Your task to perform on an android device: open chrome privacy settings Image 0: 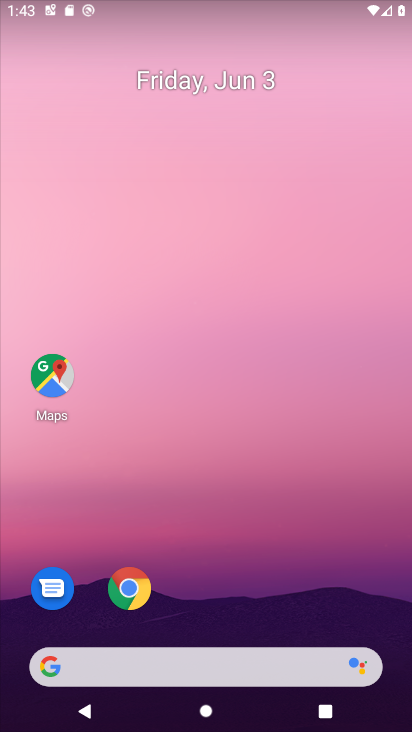
Step 0: drag from (179, 342) to (397, 341)
Your task to perform on an android device: open chrome privacy settings Image 1: 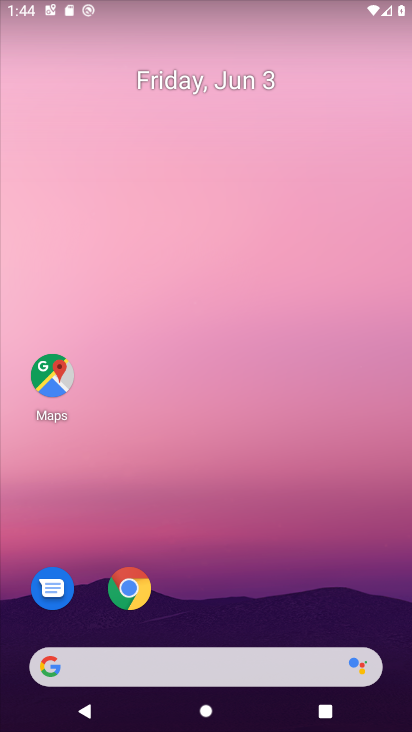
Step 1: drag from (224, 293) to (237, 145)
Your task to perform on an android device: open chrome privacy settings Image 2: 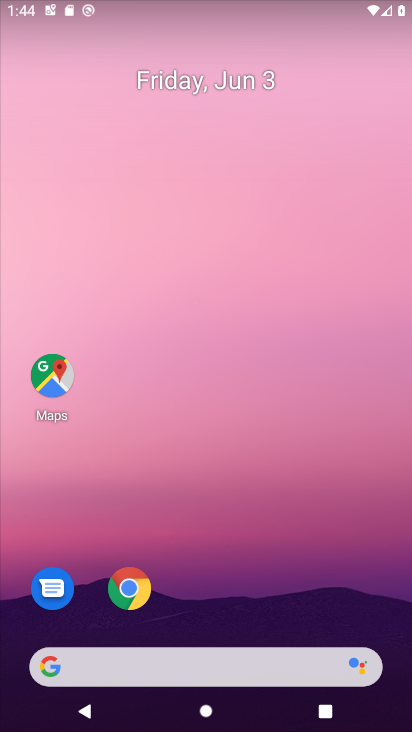
Step 2: drag from (174, 567) to (191, 8)
Your task to perform on an android device: open chrome privacy settings Image 3: 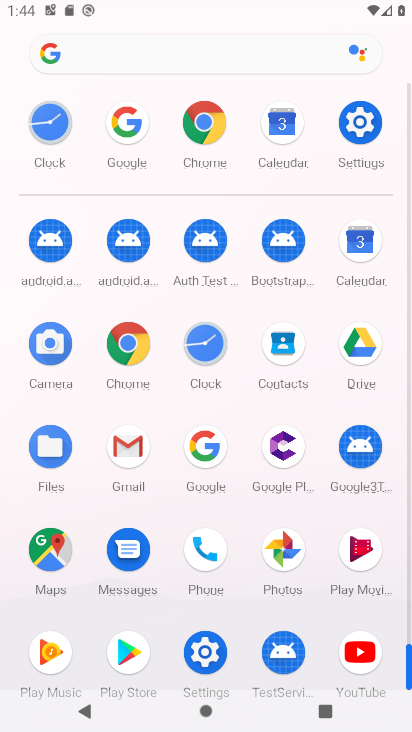
Step 3: click (208, 130)
Your task to perform on an android device: open chrome privacy settings Image 4: 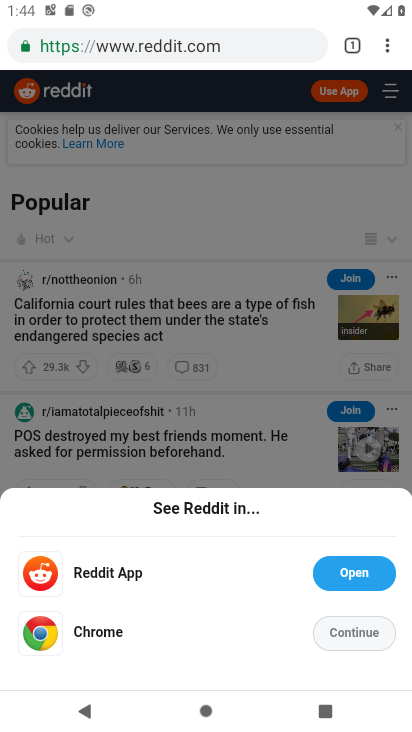
Step 4: click (392, 41)
Your task to perform on an android device: open chrome privacy settings Image 5: 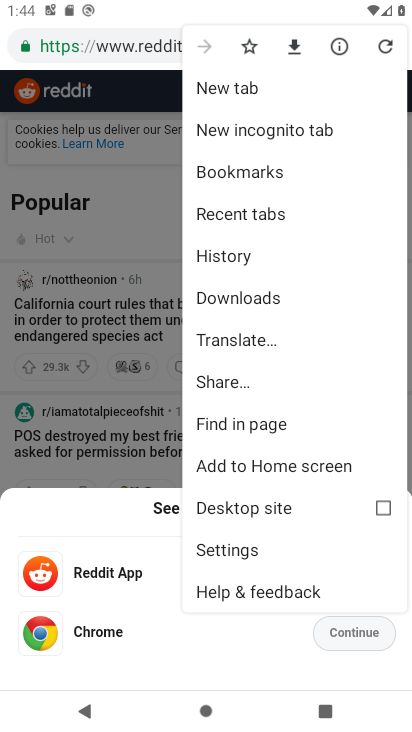
Step 5: drag from (269, 445) to (282, 13)
Your task to perform on an android device: open chrome privacy settings Image 6: 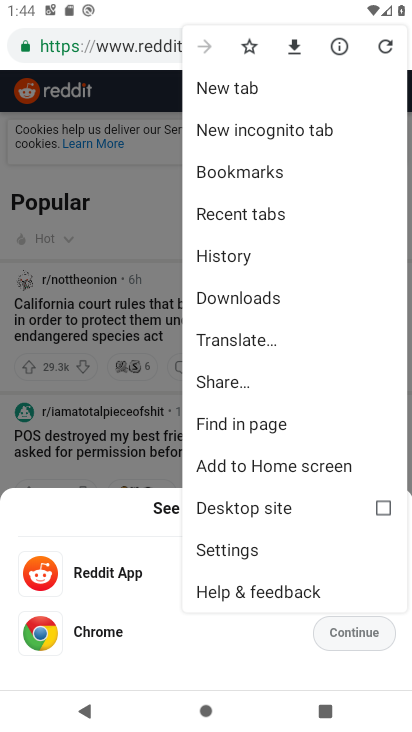
Step 6: click (238, 551)
Your task to perform on an android device: open chrome privacy settings Image 7: 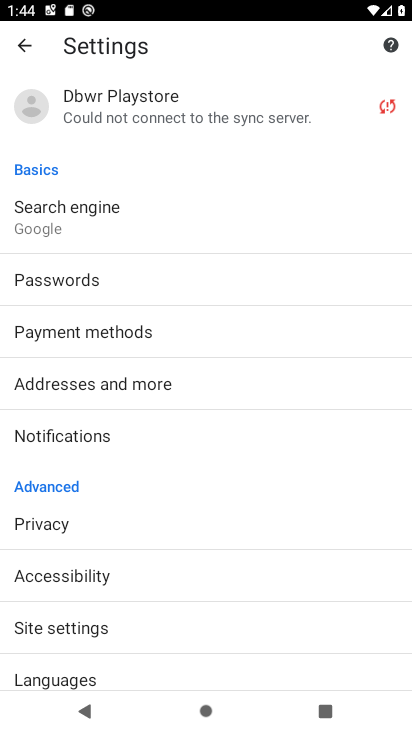
Step 7: drag from (116, 548) to (125, 235)
Your task to perform on an android device: open chrome privacy settings Image 8: 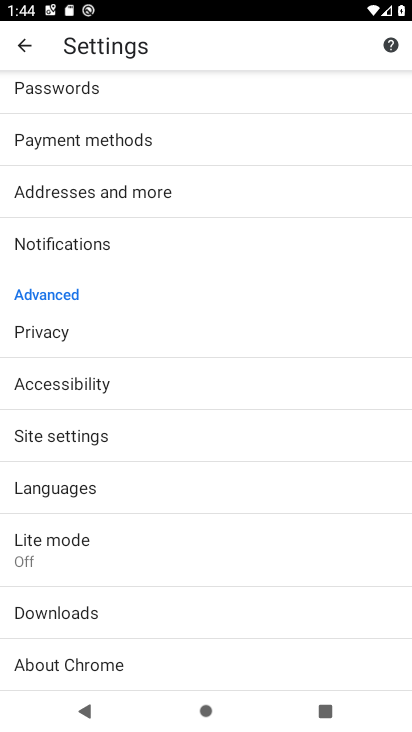
Step 8: click (74, 330)
Your task to perform on an android device: open chrome privacy settings Image 9: 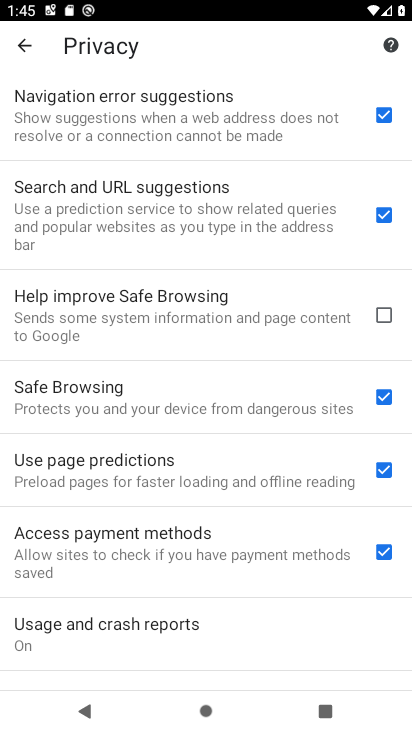
Step 9: task complete